Your task to perform on an android device: install app "DoorDash - Dasher" Image 0: 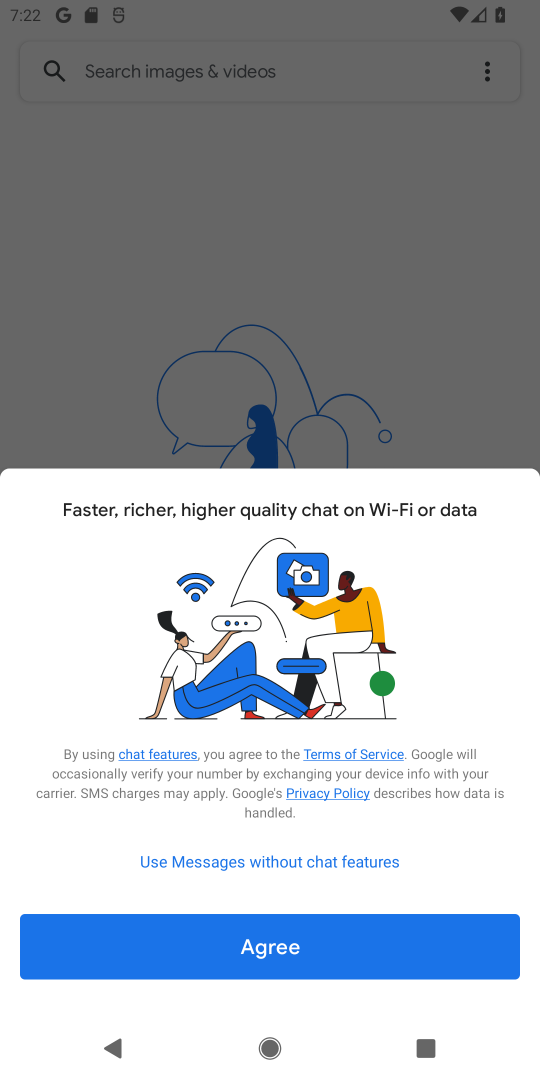
Step 0: press back button
Your task to perform on an android device: install app "DoorDash - Dasher" Image 1: 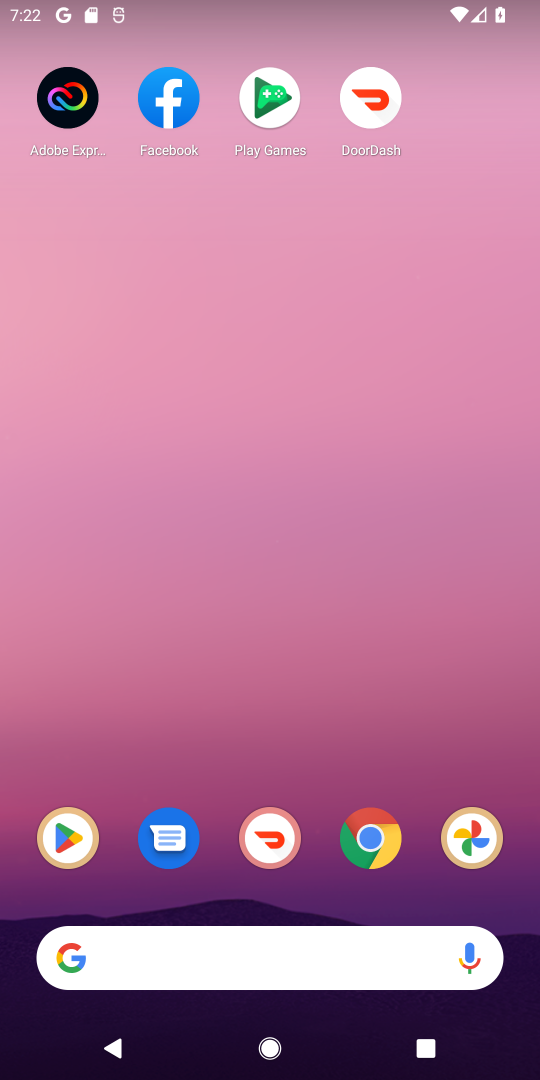
Step 1: drag from (264, 901) to (193, 316)
Your task to perform on an android device: install app "DoorDash - Dasher" Image 2: 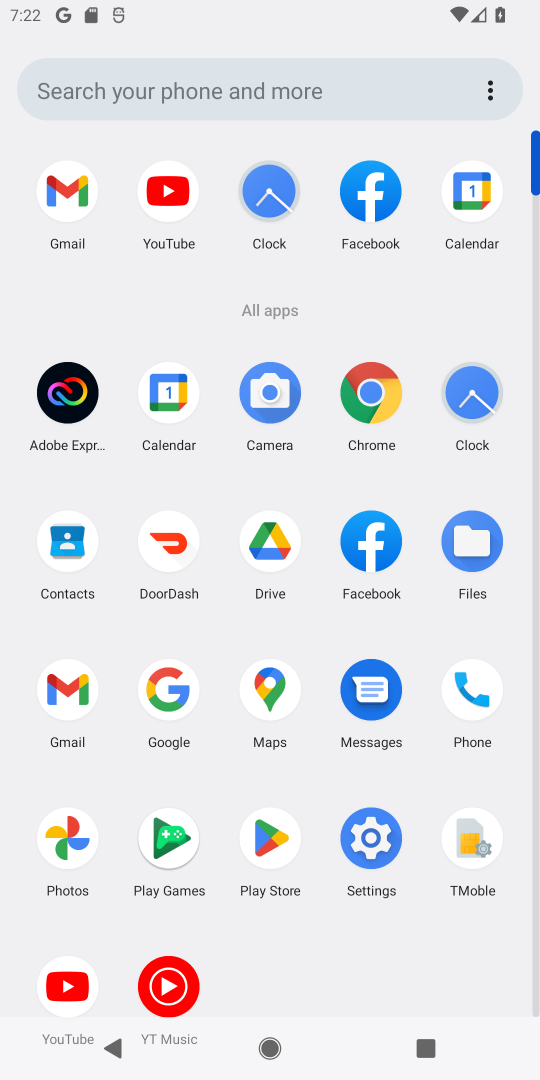
Step 2: click (178, 531)
Your task to perform on an android device: install app "DoorDash - Dasher" Image 3: 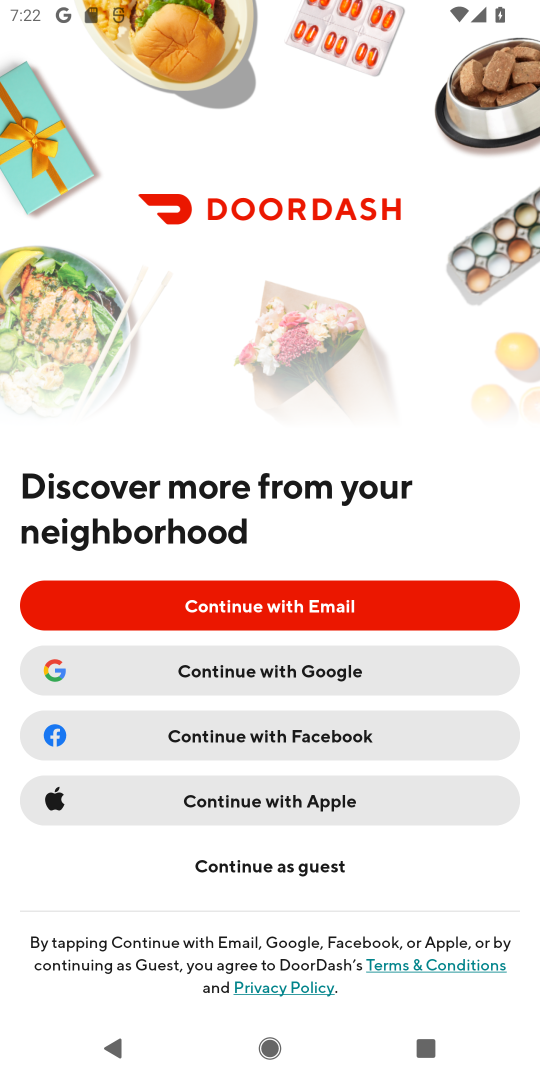
Step 3: task complete